Your task to perform on an android device: Turn off the flashlight Image 0: 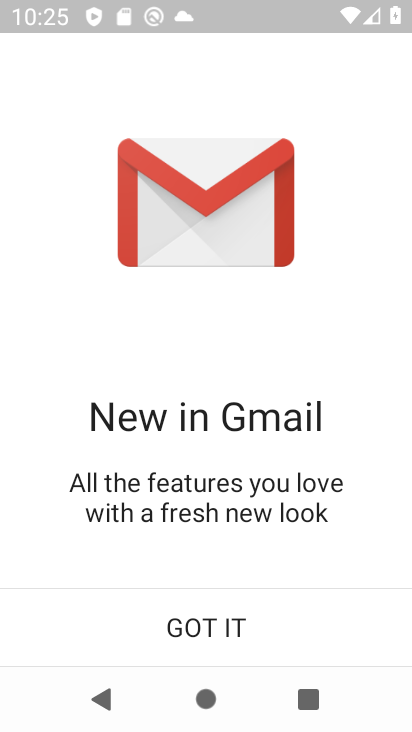
Step 0: drag from (337, 422) to (305, 29)
Your task to perform on an android device: Turn off the flashlight Image 1: 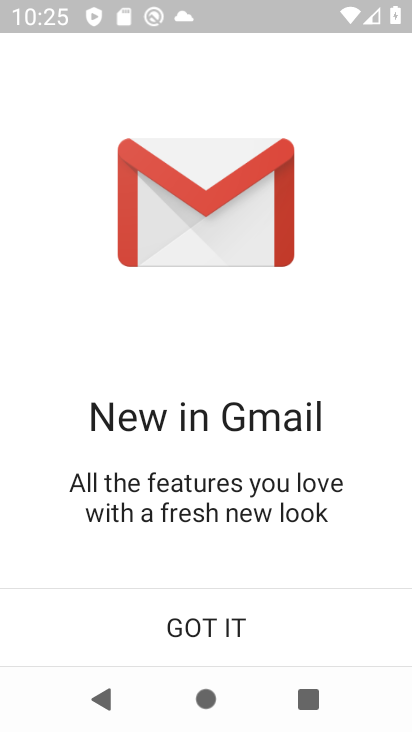
Step 1: click (202, 636)
Your task to perform on an android device: Turn off the flashlight Image 2: 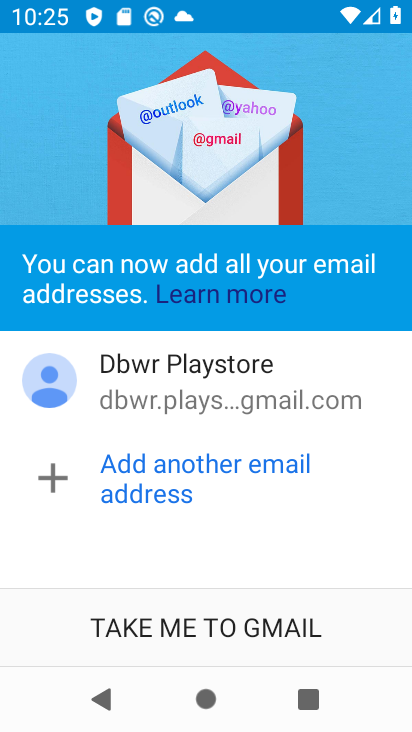
Step 2: press home button
Your task to perform on an android device: Turn off the flashlight Image 3: 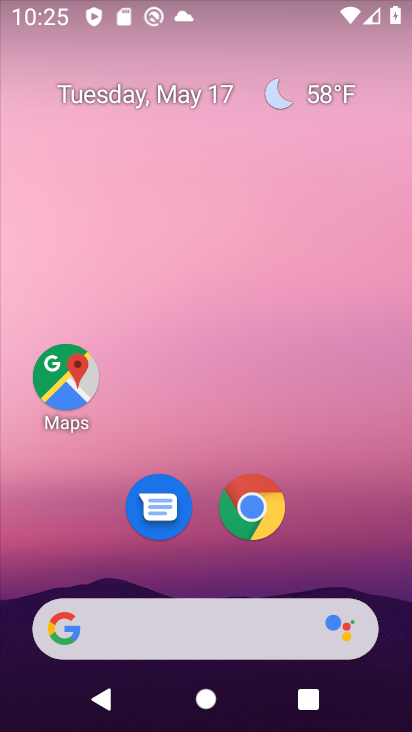
Step 3: drag from (330, 425) to (279, 15)
Your task to perform on an android device: Turn off the flashlight Image 4: 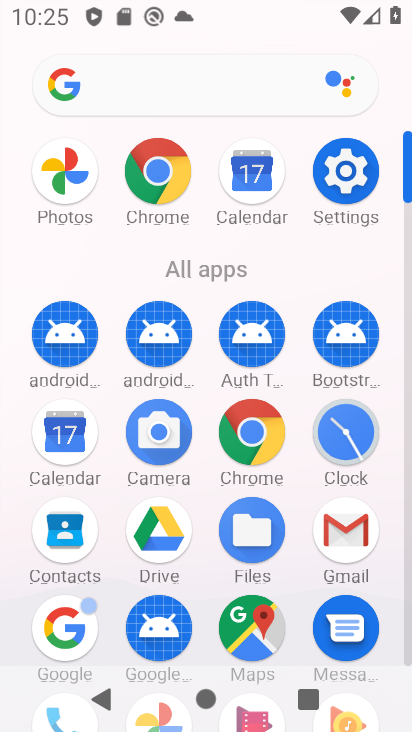
Step 4: click (333, 175)
Your task to perform on an android device: Turn off the flashlight Image 5: 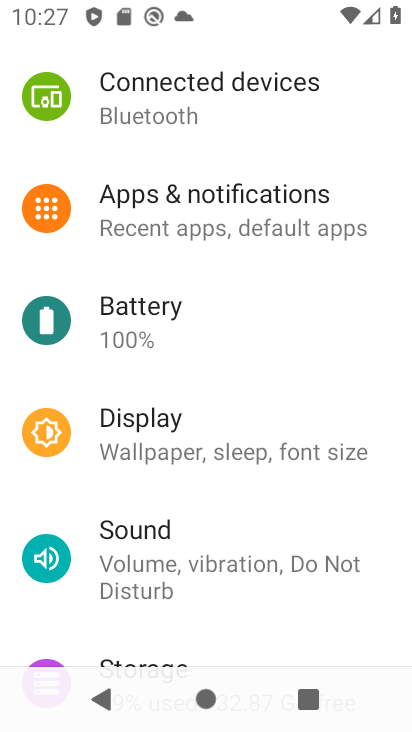
Step 5: task complete